Your task to perform on an android device: turn on priority inbox in the gmail app Image 0: 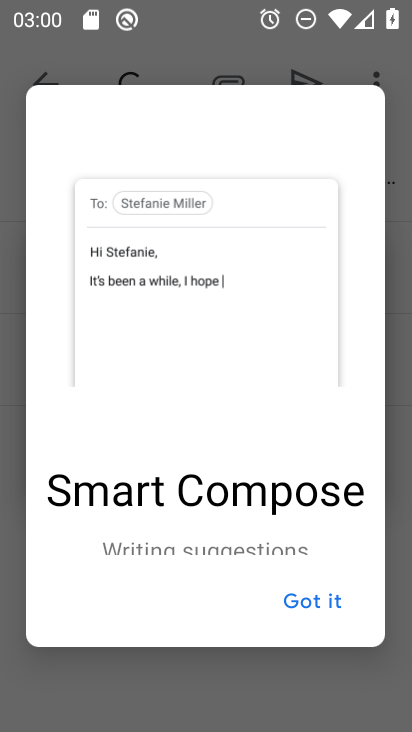
Step 0: press home button
Your task to perform on an android device: turn on priority inbox in the gmail app Image 1: 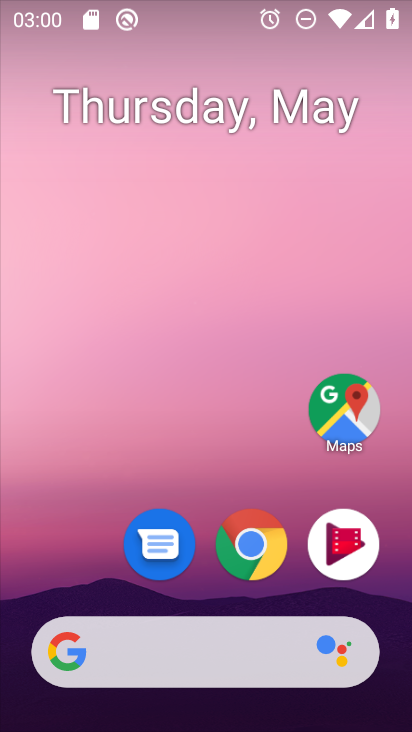
Step 1: drag from (57, 579) to (103, 140)
Your task to perform on an android device: turn on priority inbox in the gmail app Image 2: 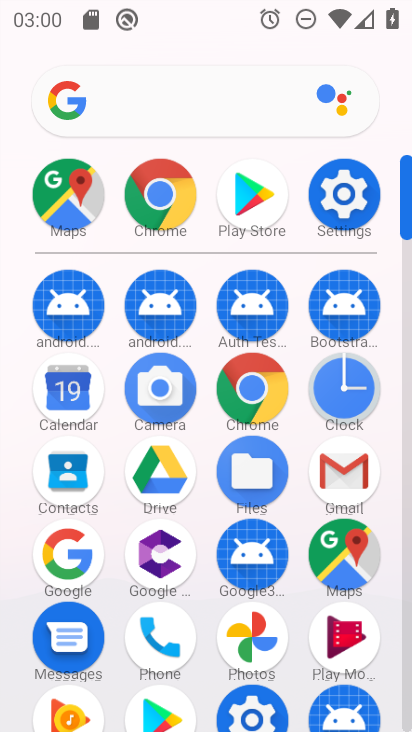
Step 2: click (339, 491)
Your task to perform on an android device: turn on priority inbox in the gmail app Image 3: 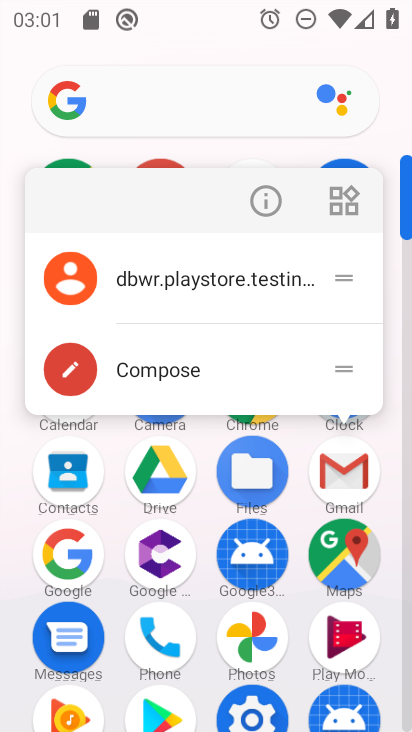
Step 3: click (348, 486)
Your task to perform on an android device: turn on priority inbox in the gmail app Image 4: 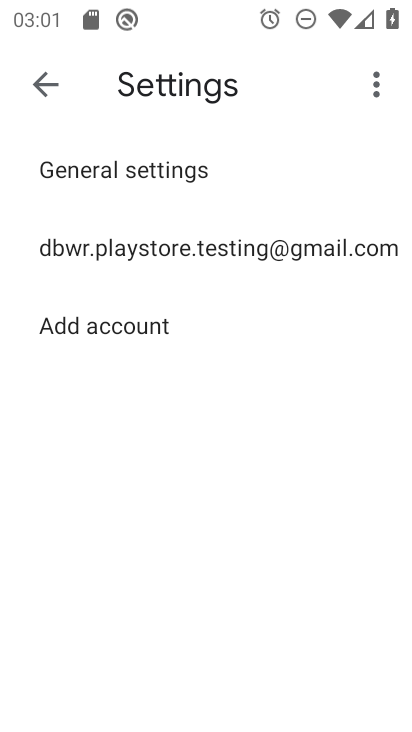
Step 4: click (240, 254)
Your task to perform on an android device: turn on priority inbox in the gmail app Image 5: 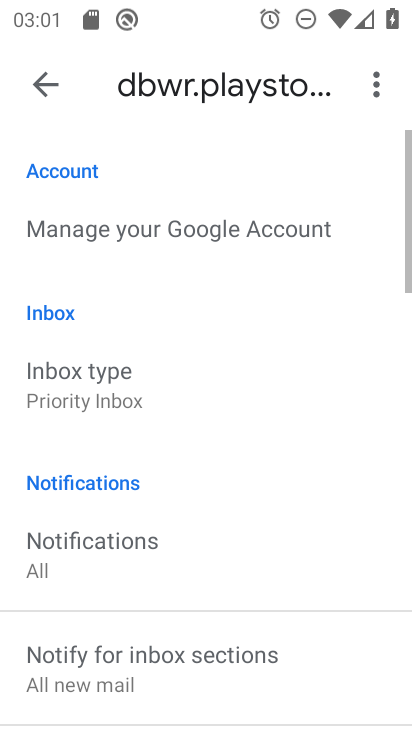
Step 5: task complete